Your task to perform on an android device: empty trash in the gmail app Image 0: 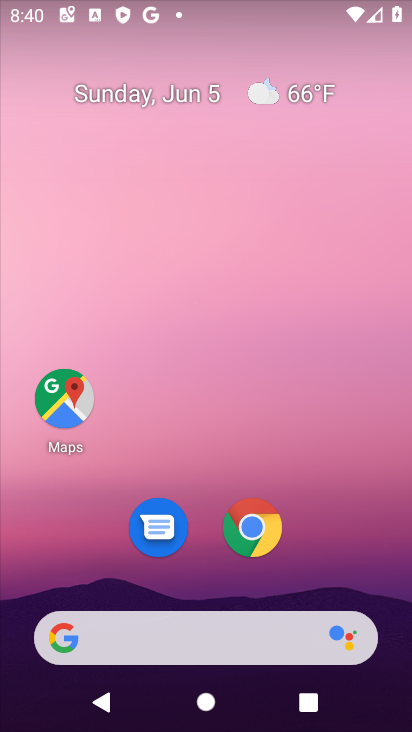
Step 0: drag from (209, 592) to (250, 23)
Your task to perform on an android device: empty trash in the gmail app Image 1: 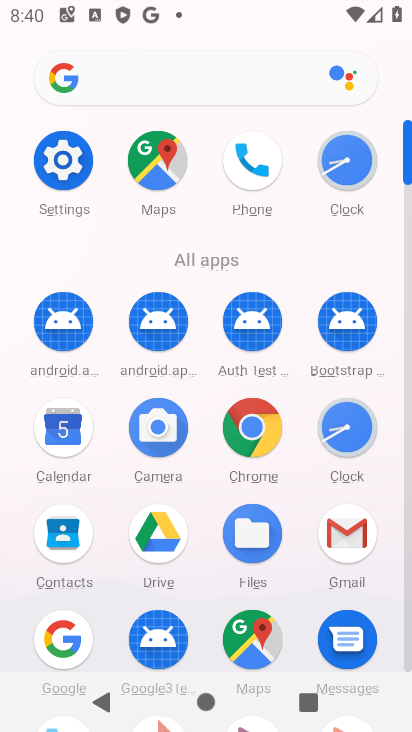
Step 1: click (346, 511)
Your task to perform on an android device: empty trash in the gmail app Image 2: 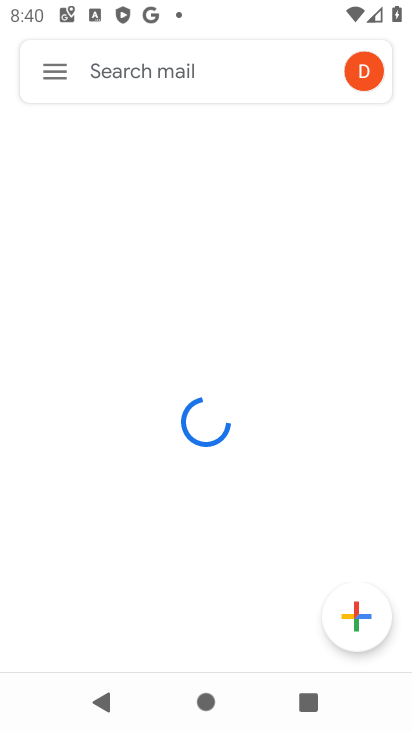
Step 2: click (48, 73)
Your task to perform on an android device: empty trash in the gmail app Image 3: 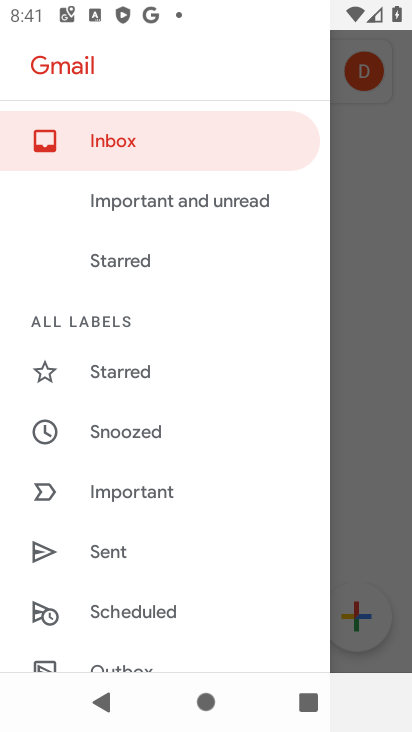
Step 3: drag from (71, 645) to (118, 171)
Your task to perform on an android device: empty trash in the gmail app Image 4: 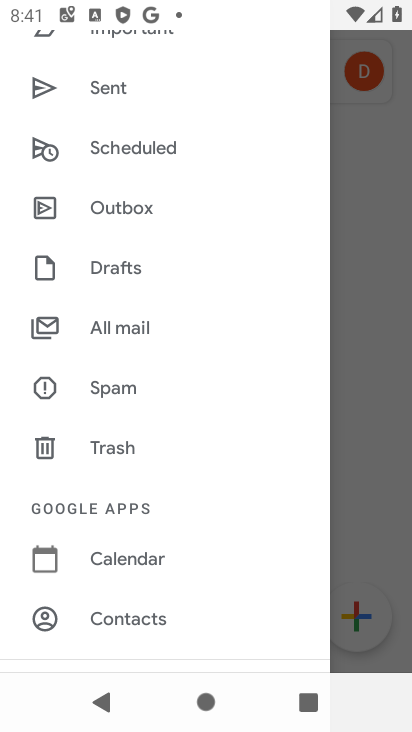
Step 4: click (115, 451)
Your task to perform on an android device: empty trash in the gmail app Image 5: 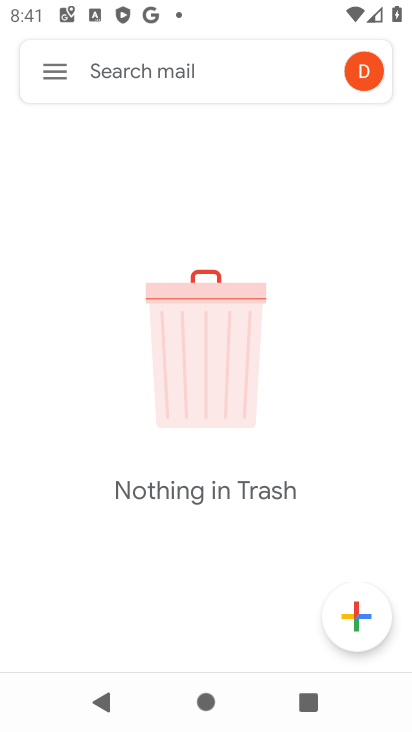
Step 5: task complete